Your task to perform on an android device: toggle sleep mode Image 0: 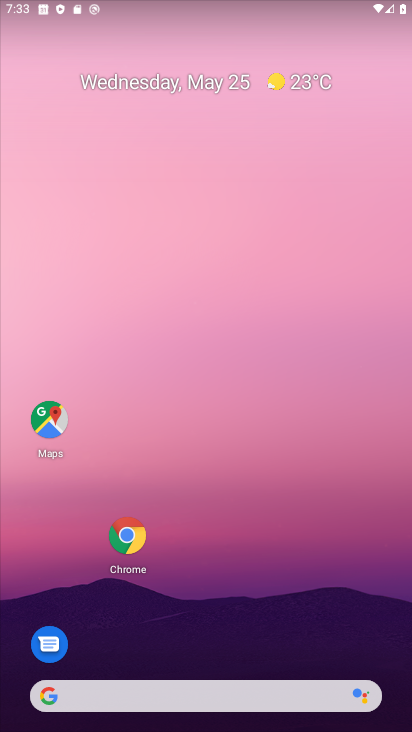
Step 0: drag from (202, 697) to (144, 362)
Your task to perform on an android device: toggle sleep mode Image 1: 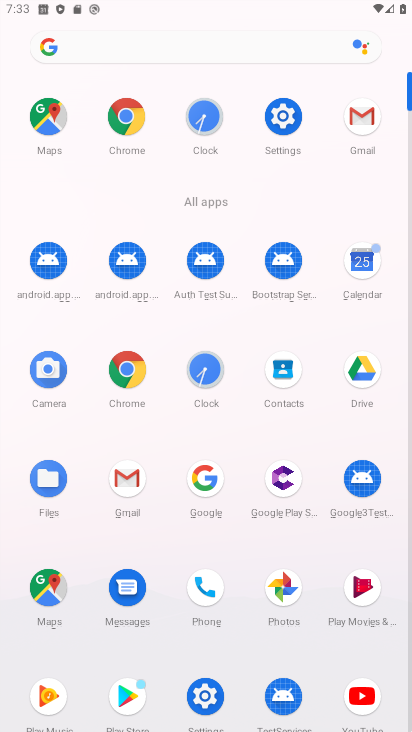
Step 1: click (283, 145)
Your task to perform on an android device: toggle sleep mode Image 2: 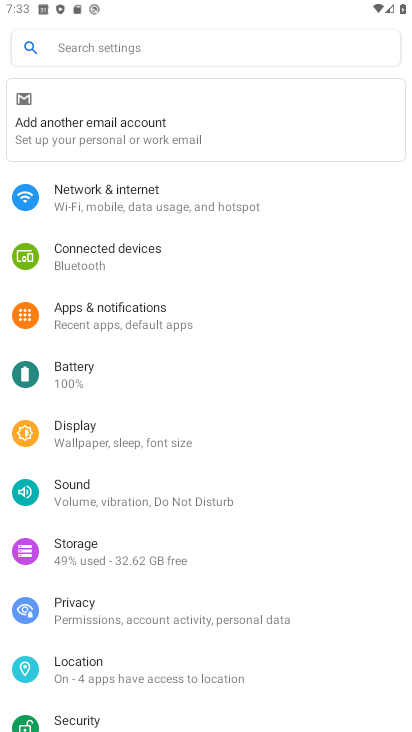
Step 2: click (84, 438)
Your task to perform on an android device: toggle sleep mode Image 3: 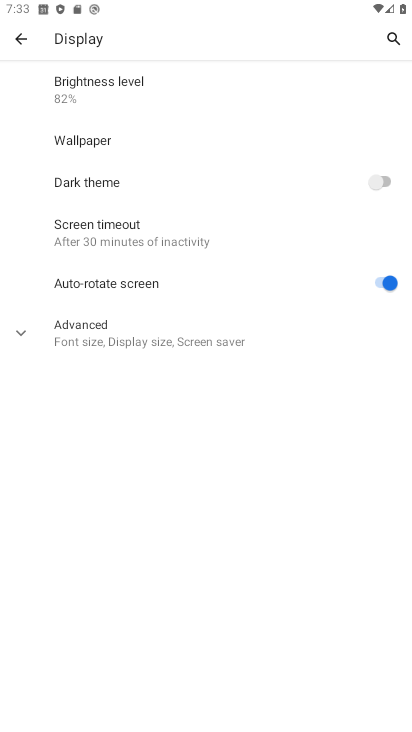
Step 3: click (133, 338)
Your task to perform on an android device: toggle sleep mode Image 4: 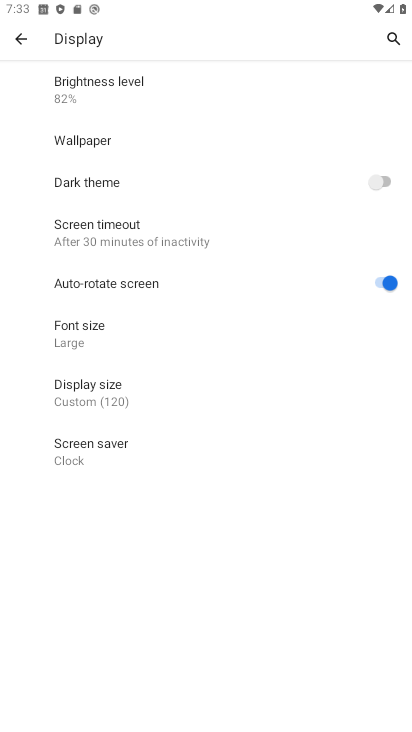
Step 4: task complete